Your task to perform on an android device: turn on translation in the chrome app Image 0: 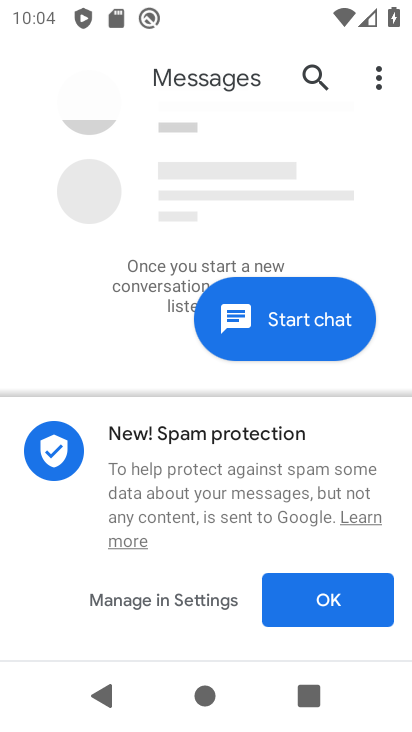
Step 0: task complete